Your task to perform on an android device: see sites visited before in the chrome app Image 0: 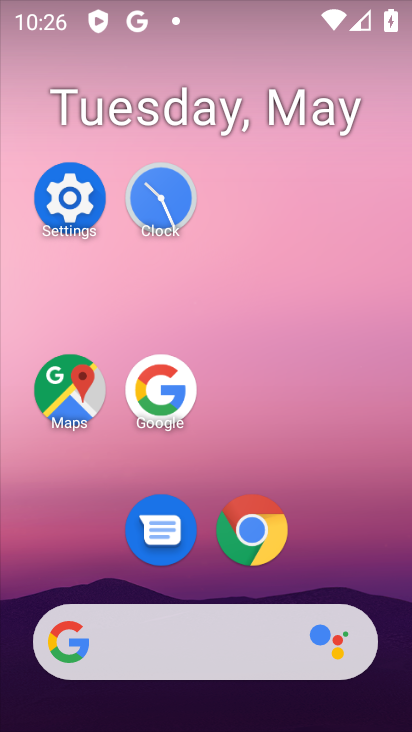
Step 0: click (262, 537)
Your task to perform on an android device: see sites visited before in the chrome app Image 1: 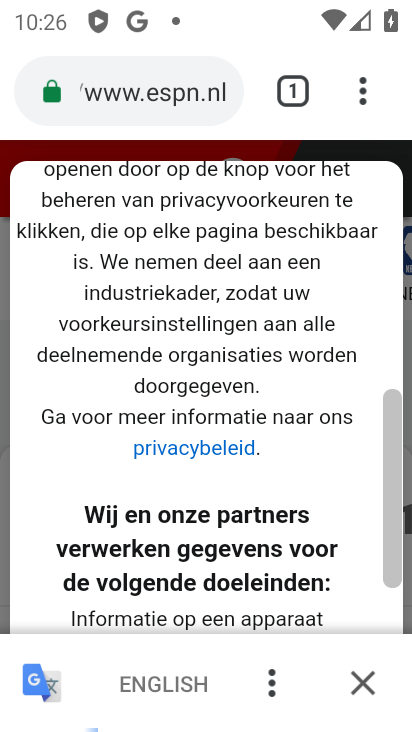
Step 1: click (380, 82)
Your task to perform on an android device: see sites visited before in the chrome app Image 2: 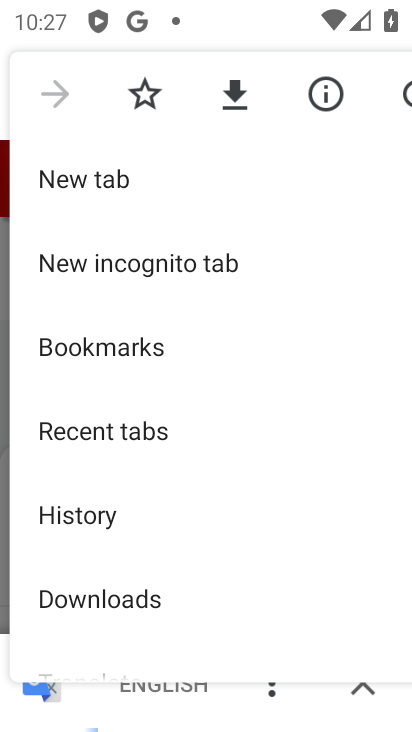
Step 2: click (123, 459)
Your task to perform on an android device: see sites visited before in the chrome app Image 3: 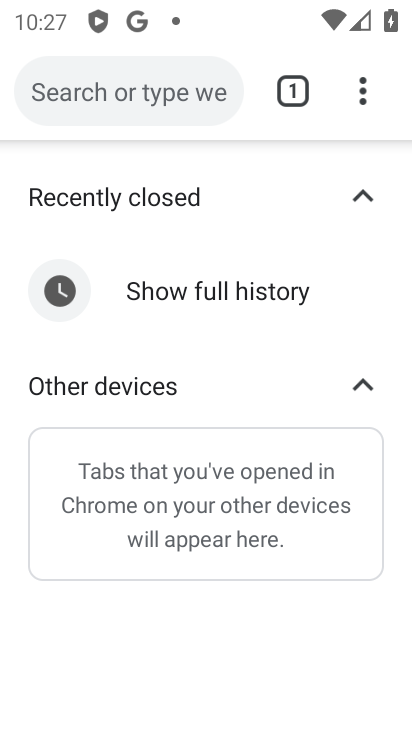
Step 3: click (245, 302)
Your task to perform on an android device: see sites visited before in the chrome app Image 4: 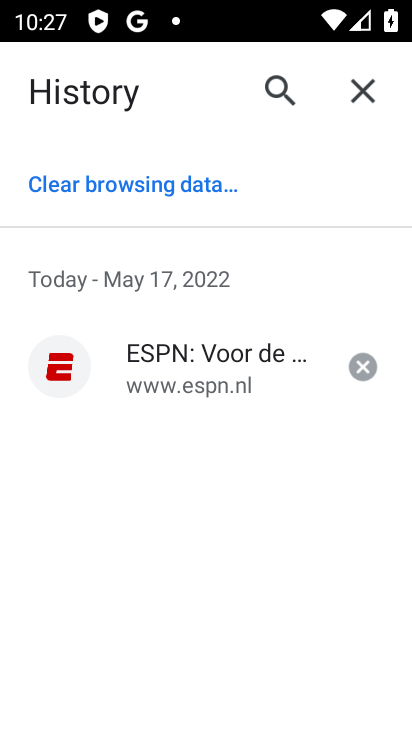
Step 4: task complete